Your task to perform on an android device: allow notifications from all sites in the chrome app Image 0: 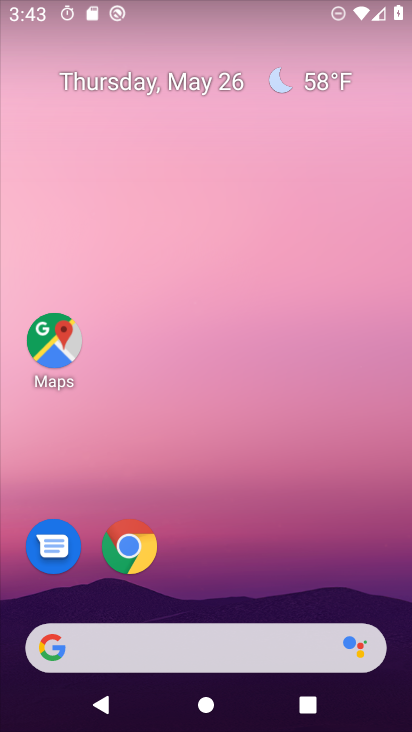
Step 0: press home button
Your task to perform on an android device: allow notifications from all sites in the chrome app Image 1: 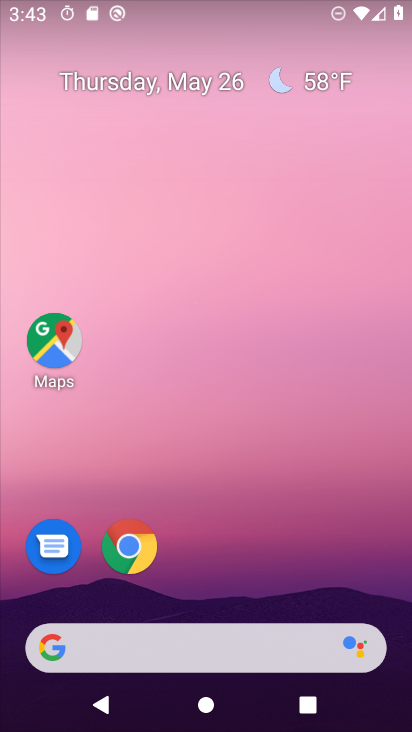
Step 1: click (125, 542)
Your task to perform on an android device: allow notifications from all sites in the chrome app Image 2: 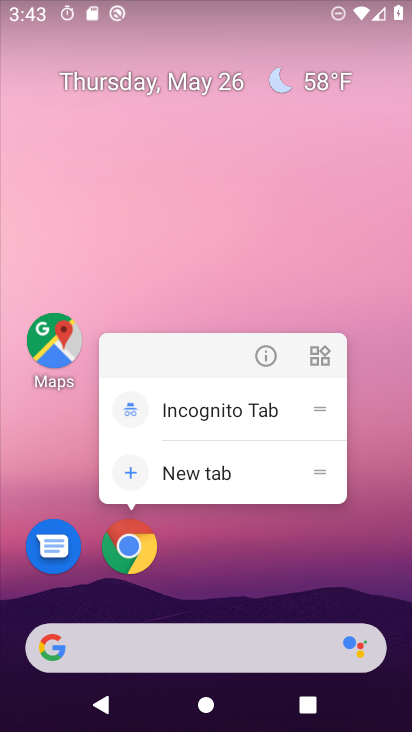
Step 2: click (123, 540)
Your task to perform on an android device: allow notifications from all sites in the chrome app Image 3: 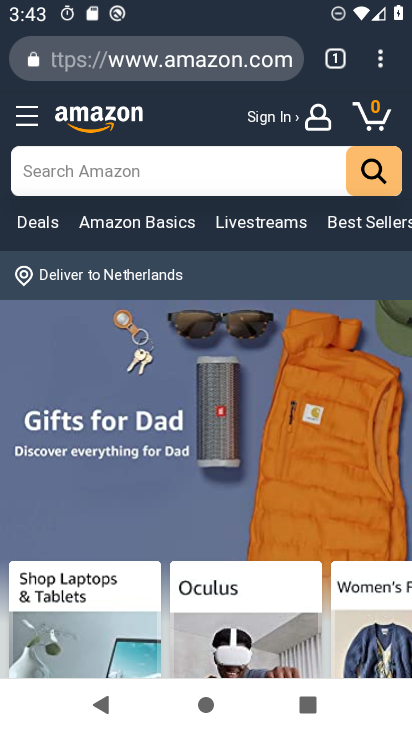
Step 3: click (374, 53)
Your task to perform on an android device: allow notifications from all sites in the chrome app Image 4: 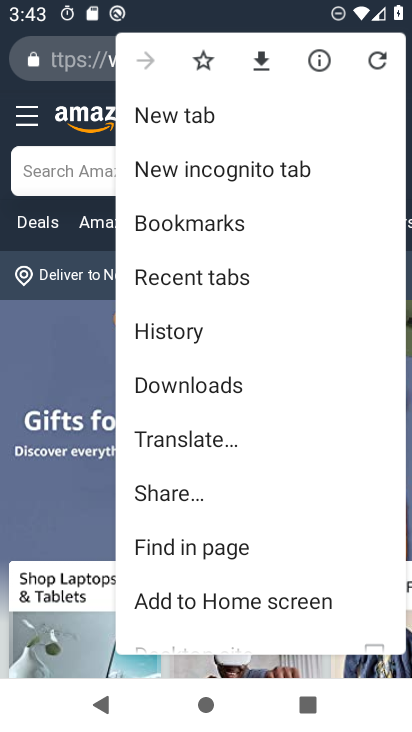
Step 4: drag from (237, 574) to (249, 99)
Your task to perform on an android device: allow notifications from all sites in the chrome app Image 5: 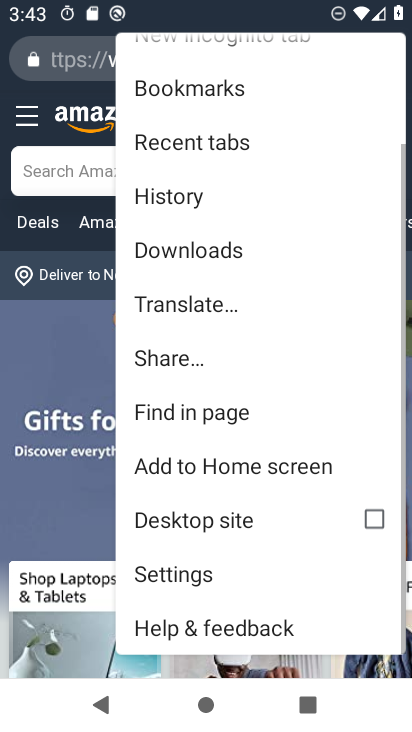
Step 5: click (221, 574)
Your task to perform on an android device: allow notifications from all sites in the chrome app Image 6: 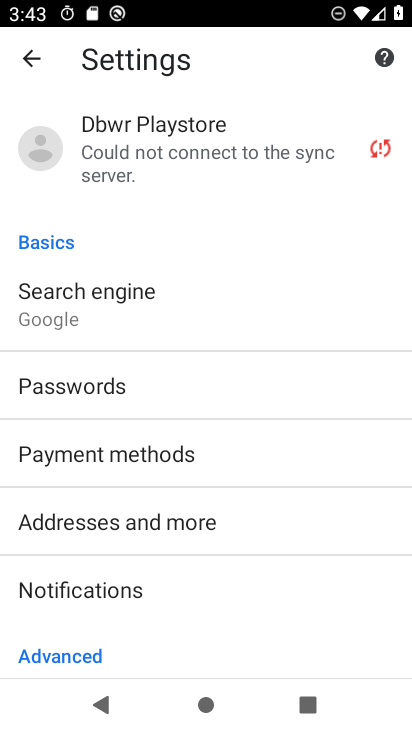
Step 6: drag from (219, 618) to (223, 113)
Your task to perform on an android device: allow notifications from all sites in the chrome app Image 7: 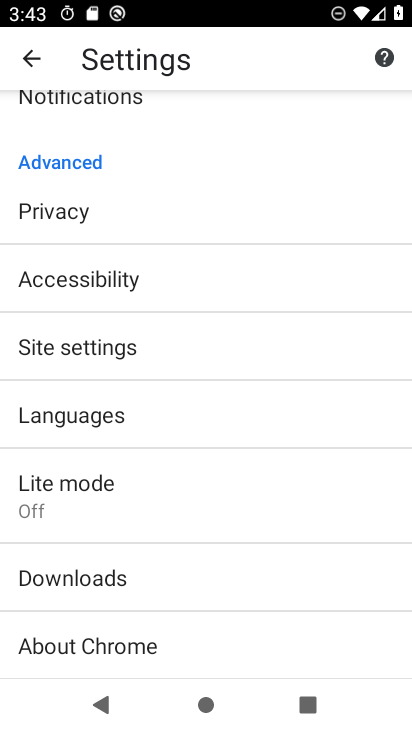
Step 7: drag from (141, 218) to (173, 451)
Your task to perform on an android device: allow notifications from all sites in the chrome app Image 8: 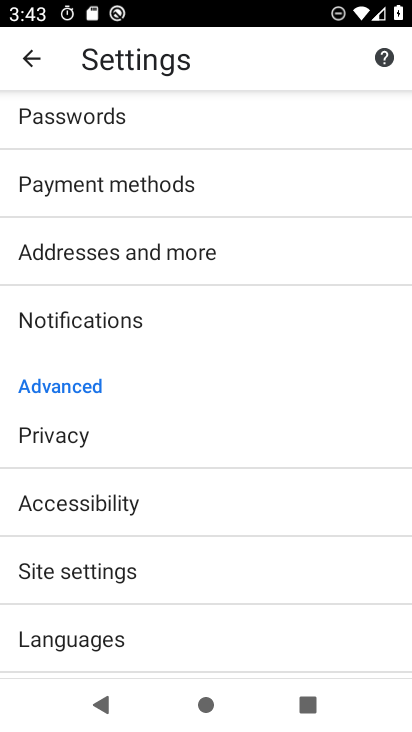
Step 8: click (162, 314)
Your task to perform on an android device: allow notifications from all sites in the chrome app Image 9: 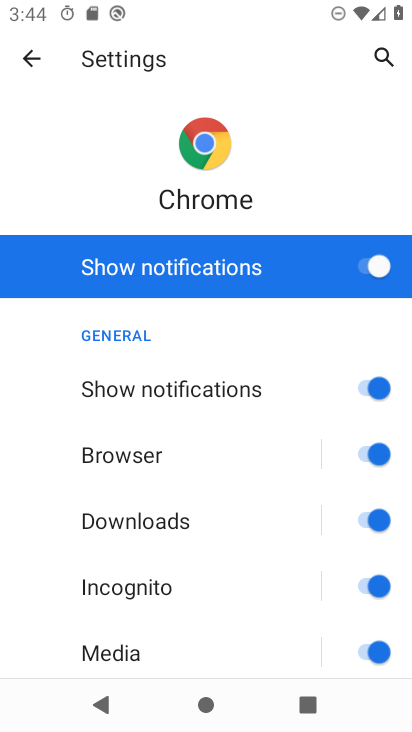
Step 9: task complete